Your task to perform on an android device: Open Google Chrome Image 0: 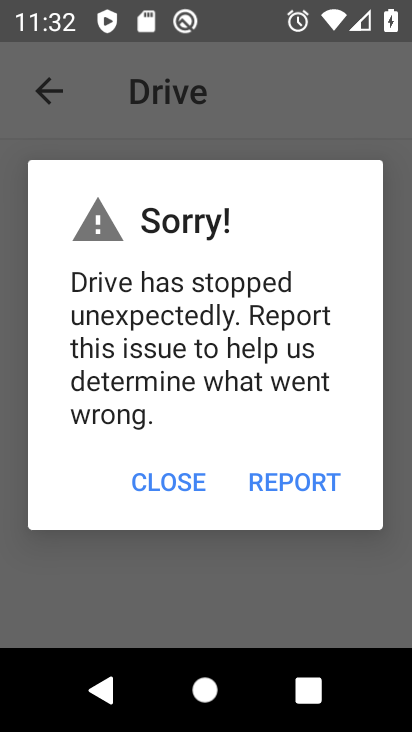
Step 0: press home button
Your task to perform on an android device: Open Google Chrome Image 1: 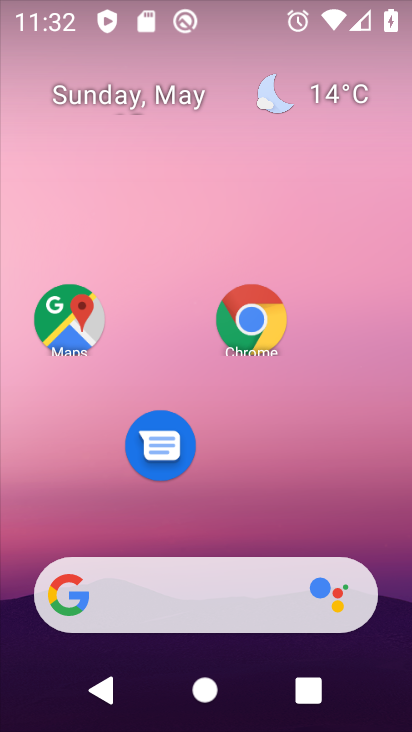
Step 1: click (259, 325)
Your task to perform on an android device: Open Google Chrome Image 2: 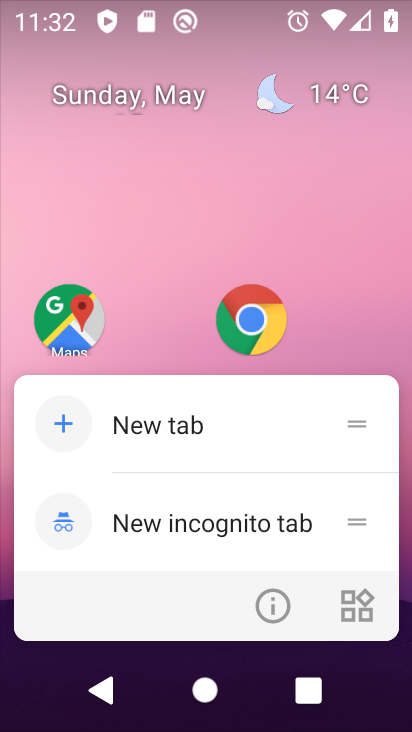
Step 2: click (259, 329)
Your task to perform on an android device: Open Google Chrome Image 3: 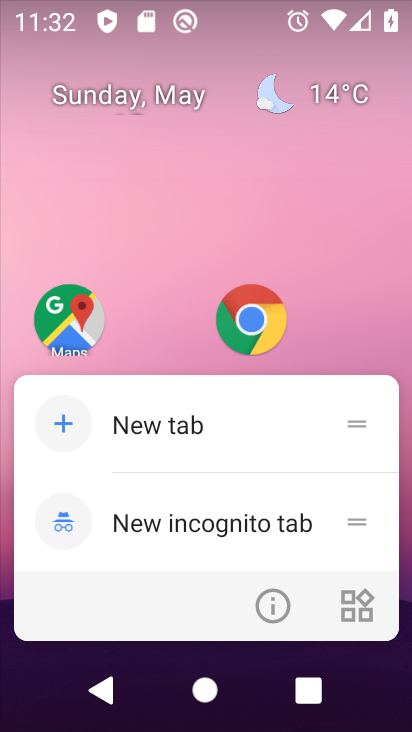
Step 3: click (251, 321)
Your task to perform on an android device: Open Google Chrome Image 4: 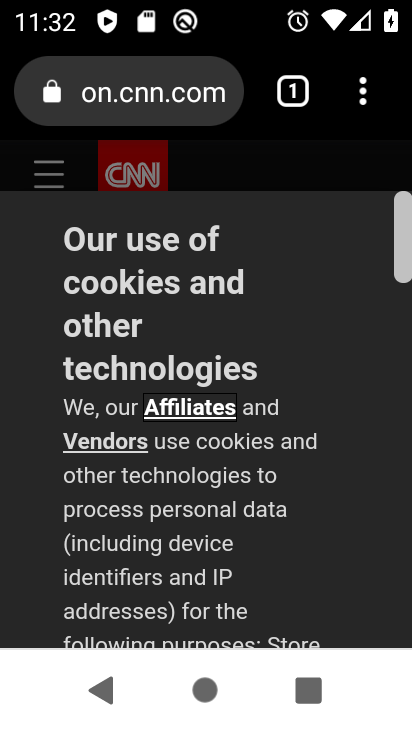
Step 4: task complete